Your task to perform on an android device: Open the phone app and click the voicemail tab. Image 0: 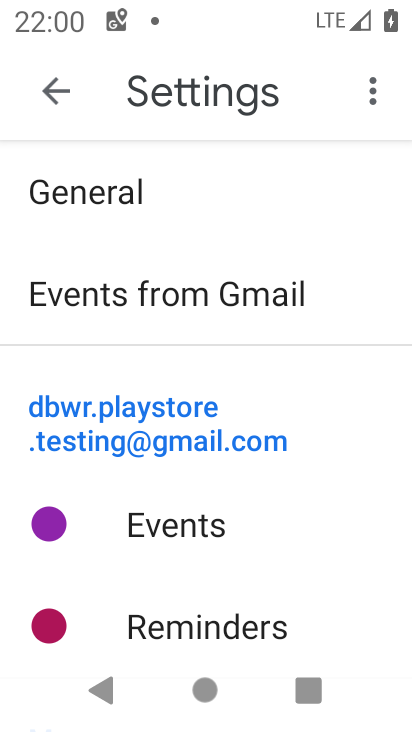
Step 0: press home button
Your task to perform on an android device: Open the phone app and click the voicemail tab. Image 1: 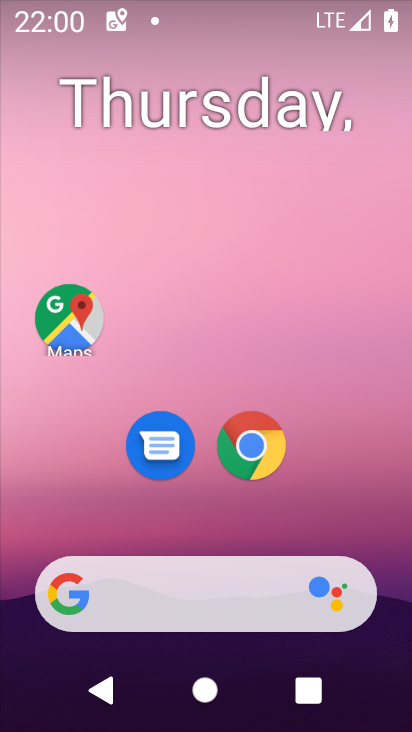
Step 1: drag from (240, 538) to (275, 202)
Your task to perform on an android device: Open the phone app and click the voicemail tab. Image 2: 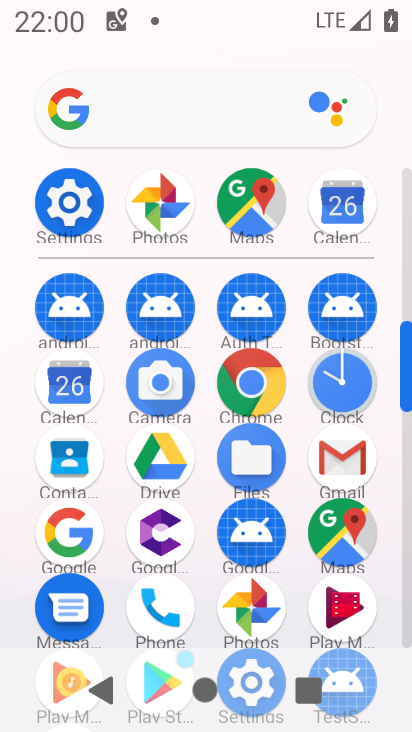
Step 2: drag from (206, 263) to (218, 122)
Your task to perform on an android device: Open the phone app and click the voicemail tab. Image 3: 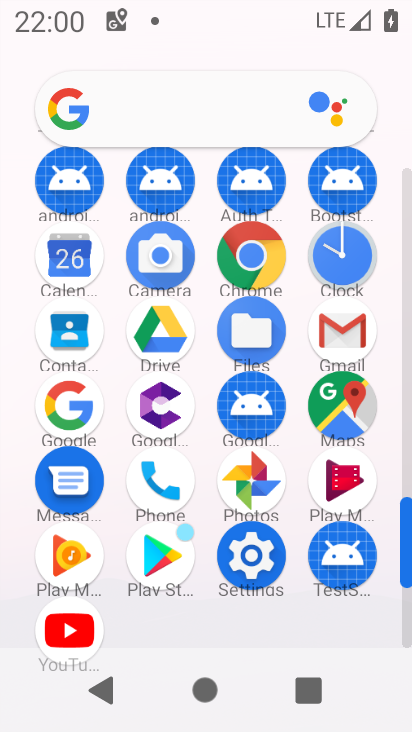
Step 3: click (160, 485)
Your task to perform on an android device: Open the phone app and click the voicemail tab. Image 4: 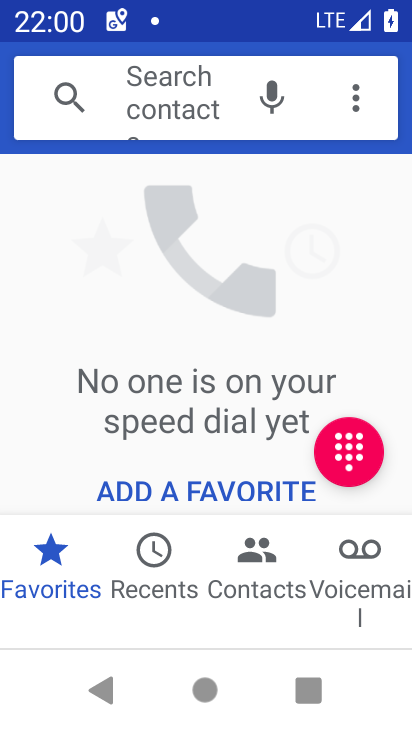
Step 4: click (374, 566)
Your task to perform on an android device: Open the phone app and click the voicemail tab. Image 5: 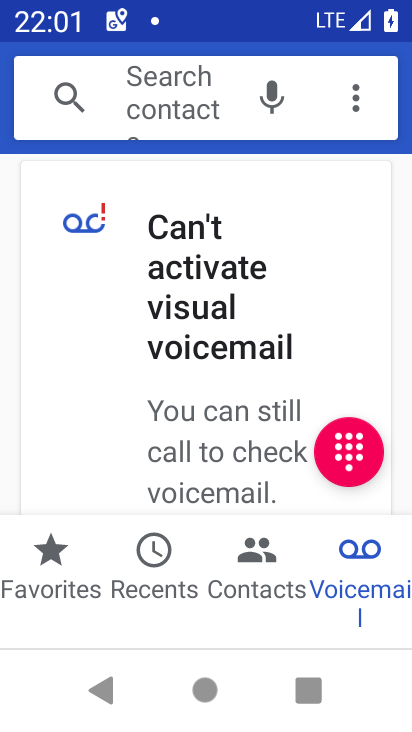
Step 5: task complete